Your task to perform on an android device: Search for 12ft 120W LED tube light on home depot Image 0: 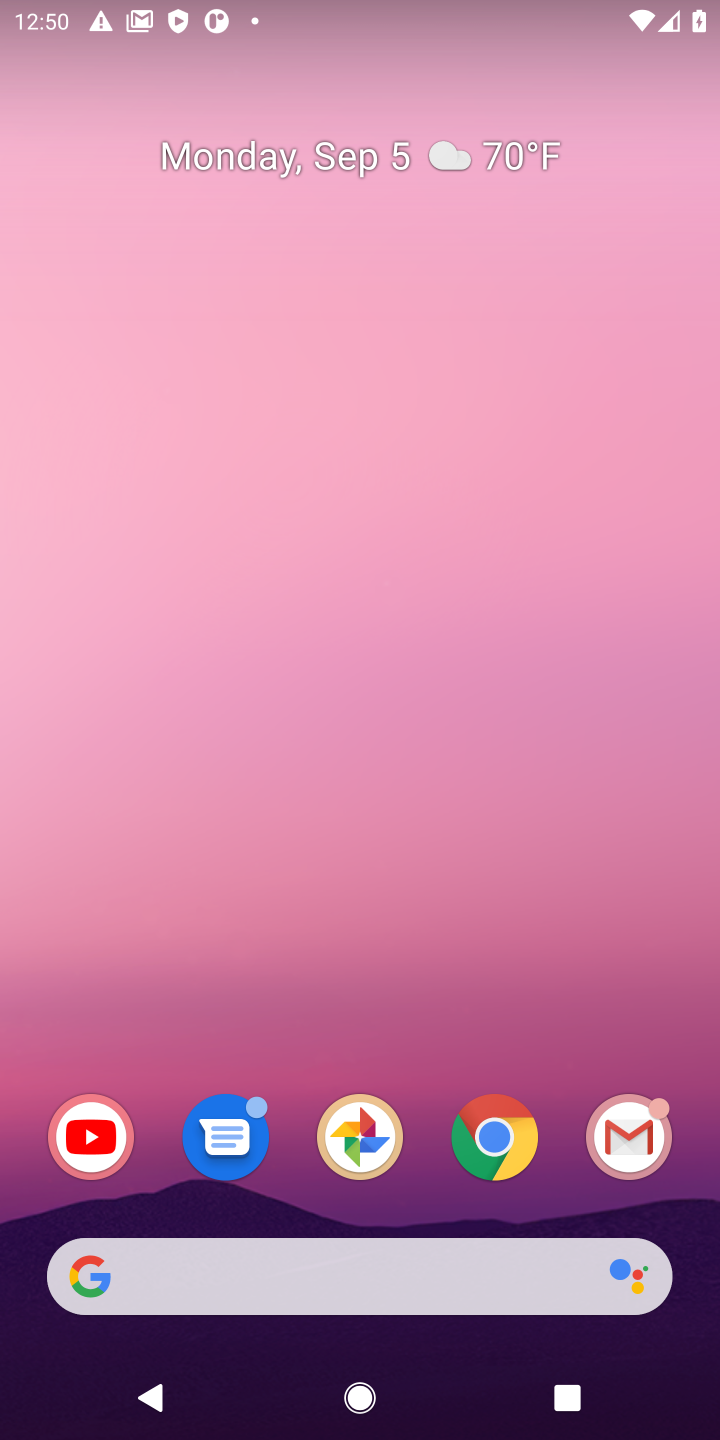
Step 0: click (501, 1145)
Your task to perform on an android device: Search for 12ft 120W LED tube light on home depot Image 1: 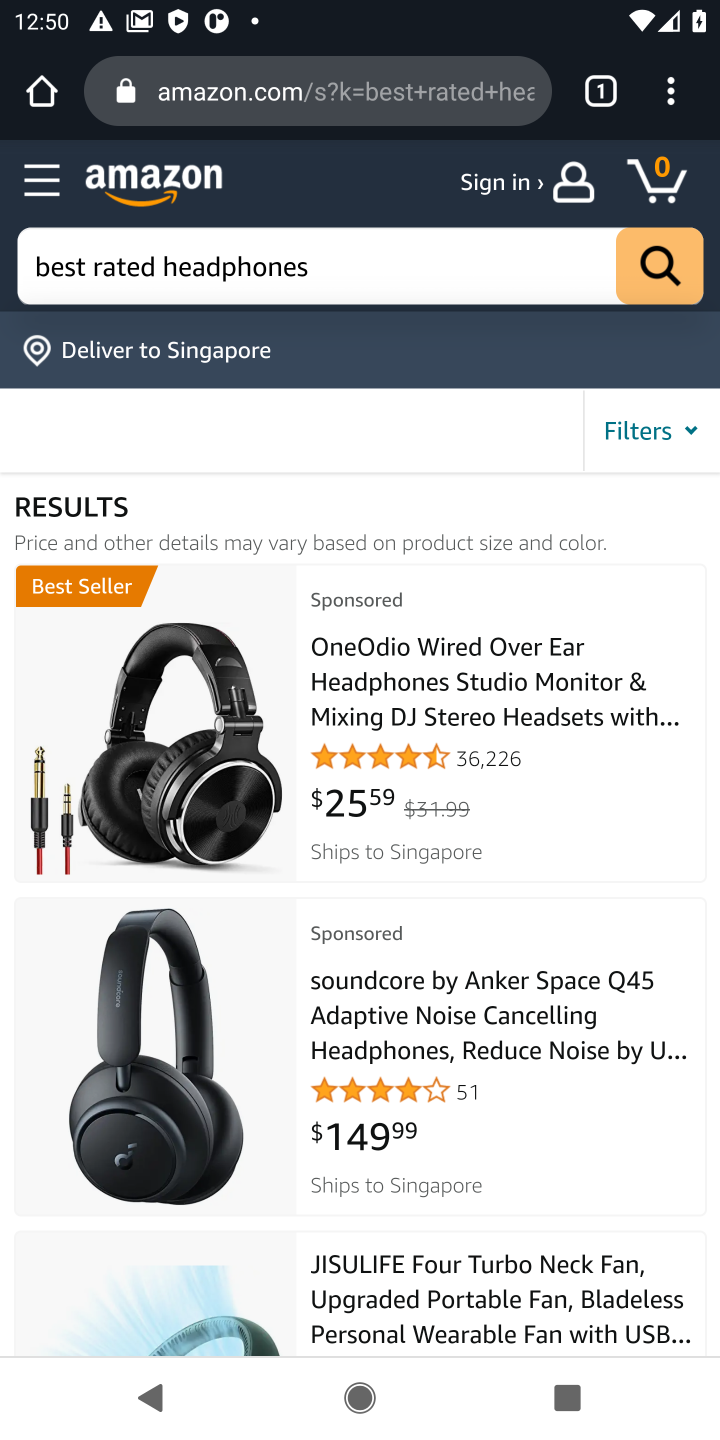
Step 1: click (409, 111)
Your task to perform on an android device: Search for 12ft 120W LED tube light on home depot Image 2: 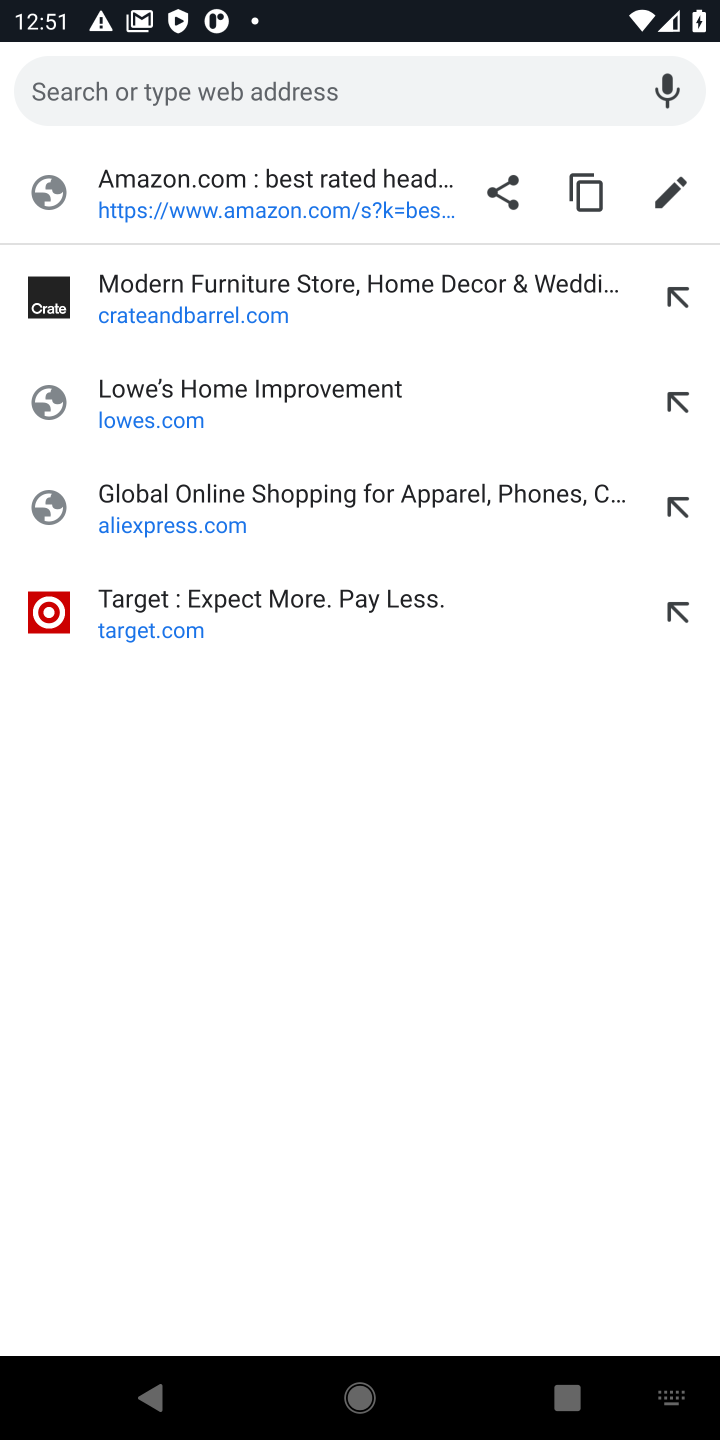
Step 2: type "home depot"
Your task to perform on an android device: Search for 12ft 120W LED tube light on home depot Image 3: 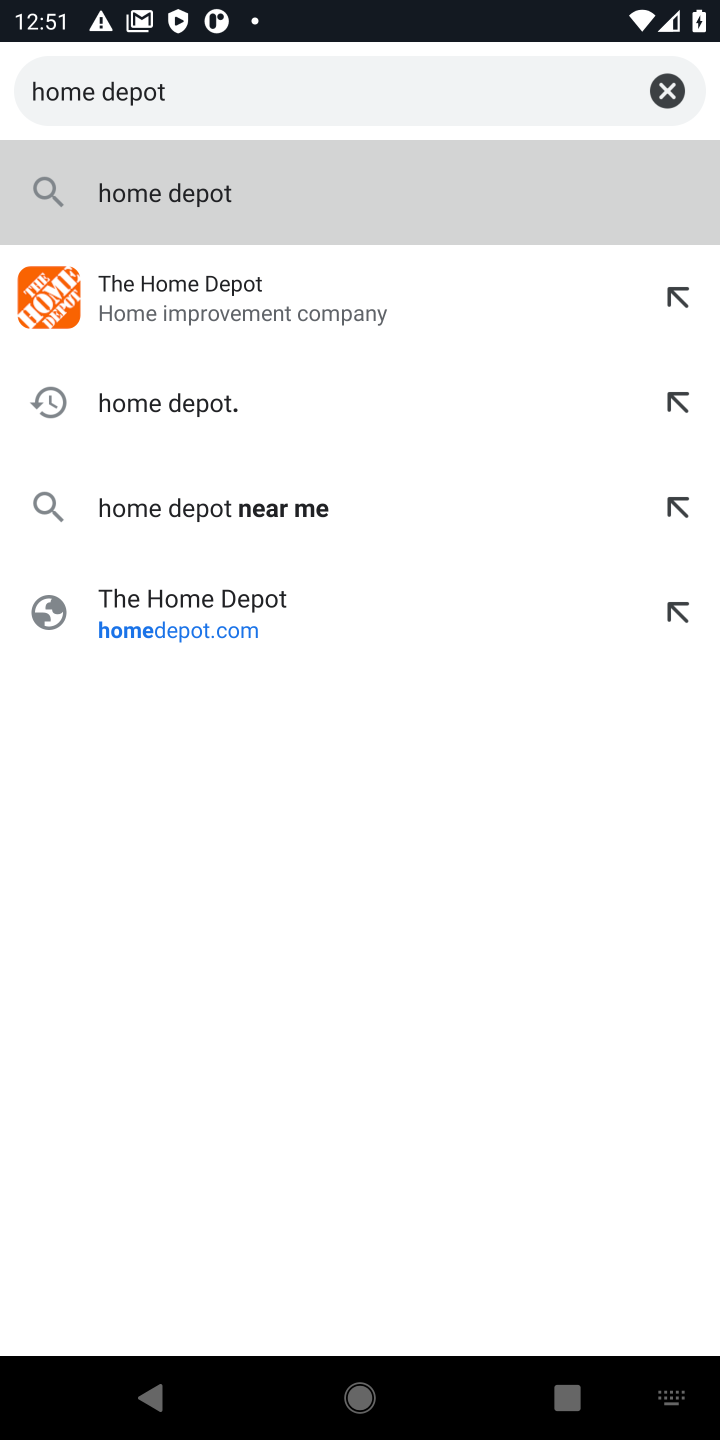
Step 3: click (279, 606)
Your task to perform on an android device: Search for 12ft 120W LED tube light on home depot Image 4: 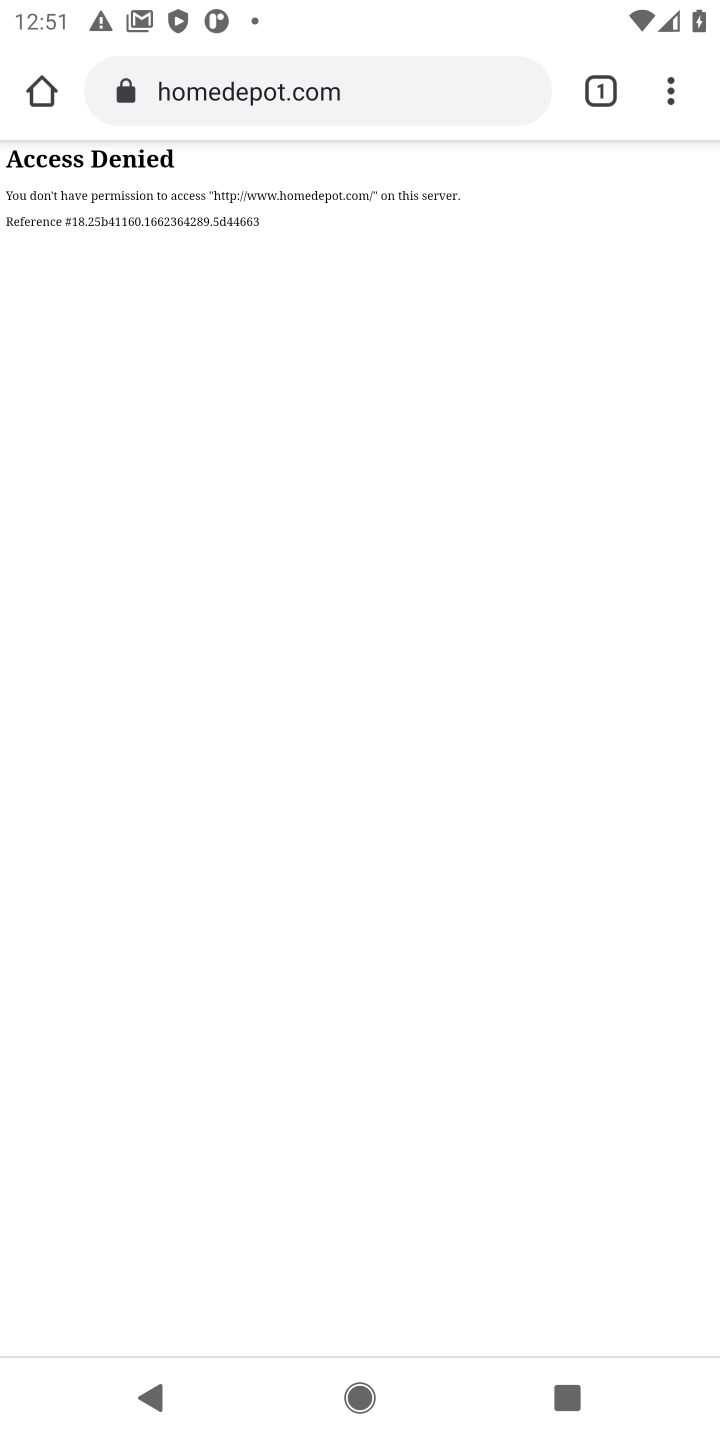
Step 4: task complete